Your task to perform on an android device: turn on improve location accuracy Image 0: 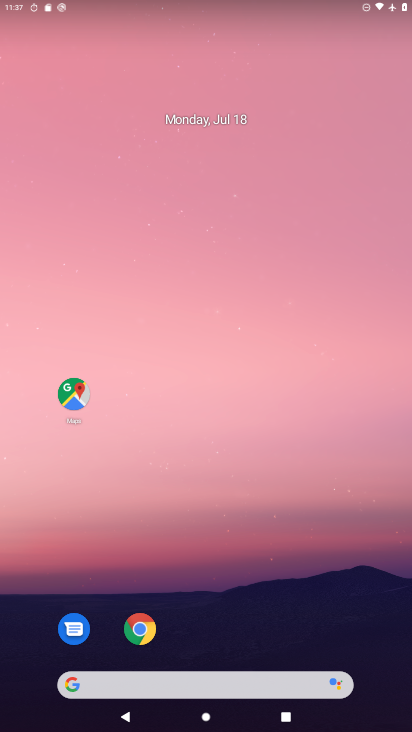
Step 0: drag from (338, 588) to (327, 93)
Your task to perform on an android device: turn on improve location accuracy Image 1: 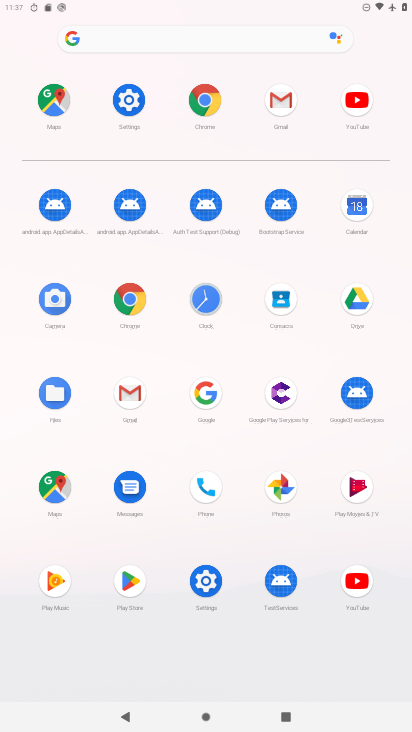
Step 1: click (130, 93)
Your task to perform on an android device: turn on improve location accuracy Image 2: 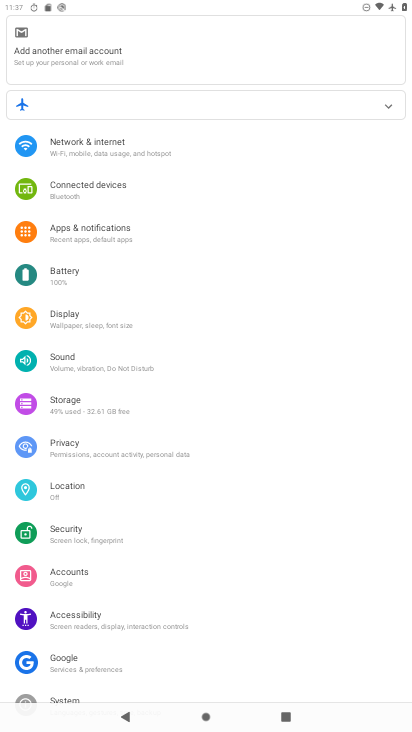
Step 2: click (84, 486)
Your task to perform on an android device: turn on improve location accuracy Image 3: 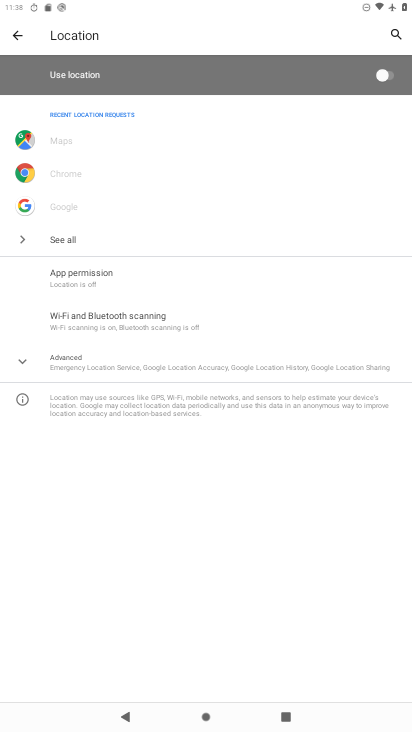
Step 3: click (95, 371)
Your task to perform on an android device: turn on improve location accuracy Image 4: 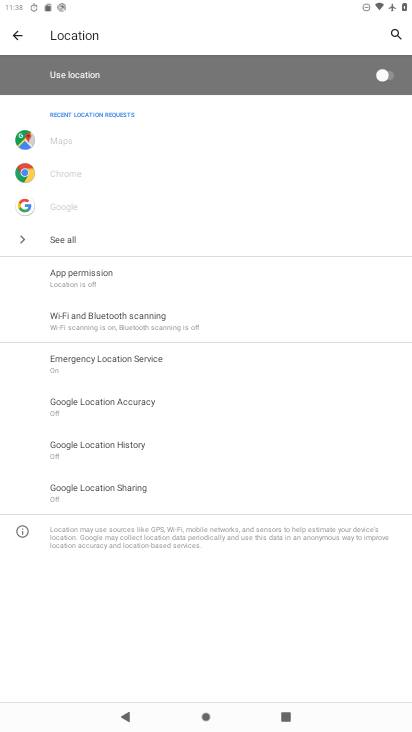
Step 4: click (146, 400)
Your task to perform on an android device: turn on improve location accuracy Image 5: 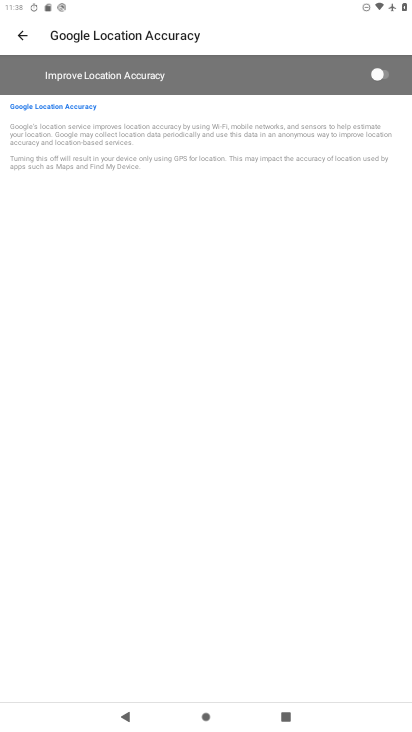
Step 5: click (382, 61)
Your task to perform on an android device: turn on improve location accuracy Image 6: 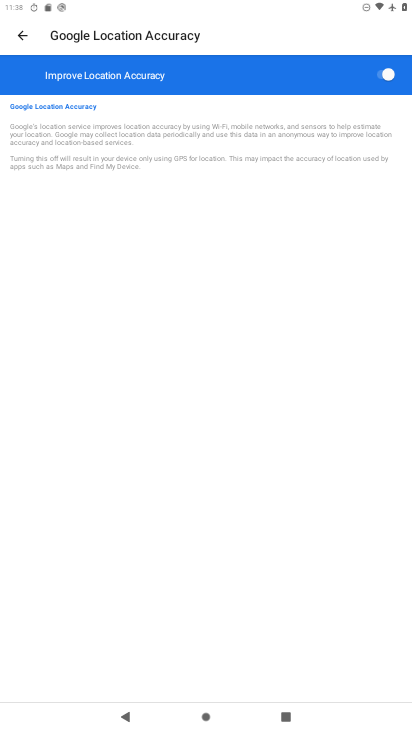
Step 6: task complete